Your task to perform on an android device: Open Google Maps and go to "Timeline" Image 0: 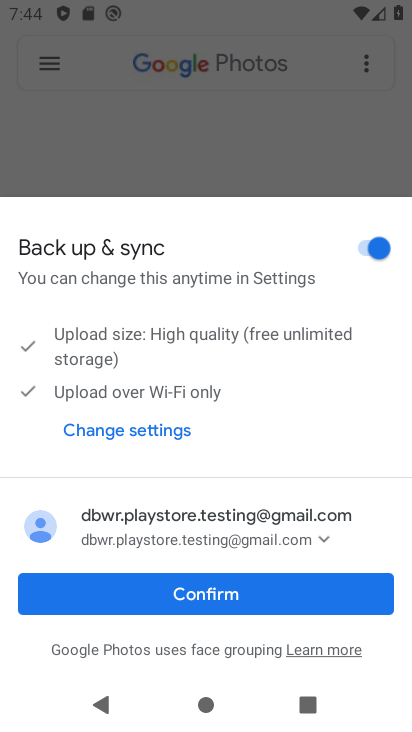
Step 0: press home button
Your task to perform on an android device: Open Google Maps and go to "Timeline" Image 1: 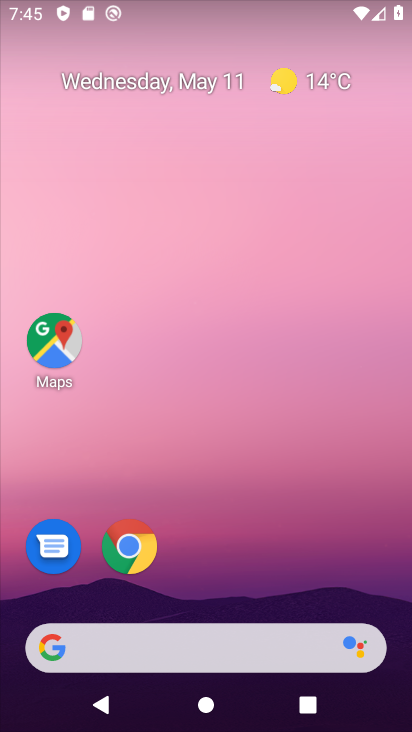
Step 1: click (65, 352)
Your task to perform on an android device: Open Google Maps and go to "Timeline" Image 2: 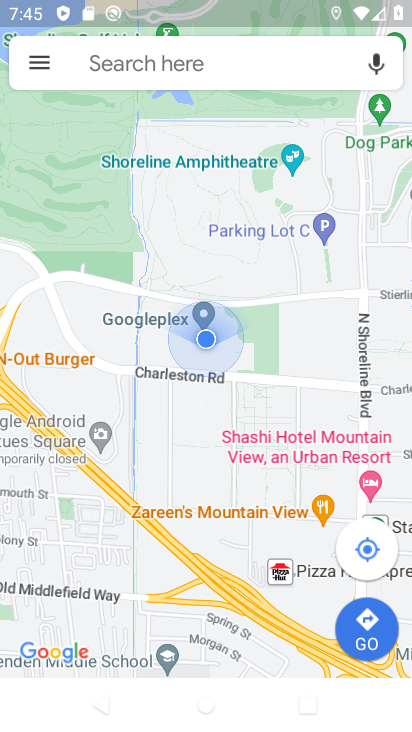
Step 2: click (39, 57)
Your task to perform on an android device: Open Google Maps and go to "Timeline" Image 3: 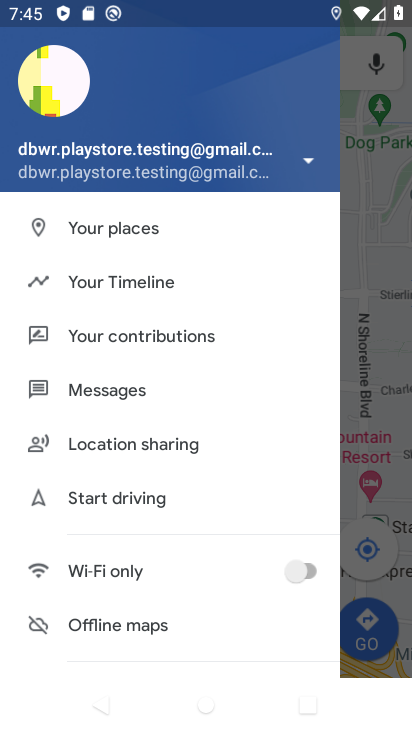
Step 3: click (85, 284)
Your task to perform on an android device: Open Google Maps and go to "Timeline" Image 4: 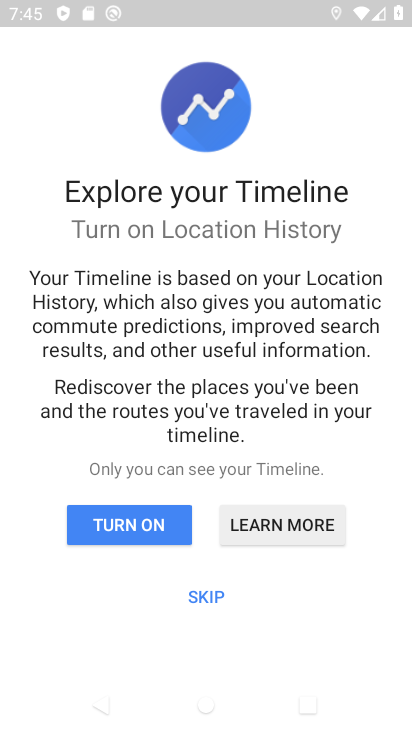
Step 4: click (147, 520)
Your task to perform on an android device: Open Google Maps and go to "Timeline" Image 5: 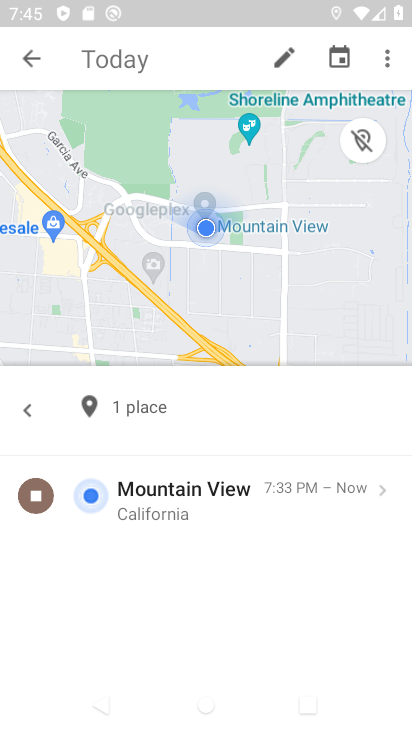
Step 5: task complete